Your task to perform on an android device: Turn on the flashlight Image 0: 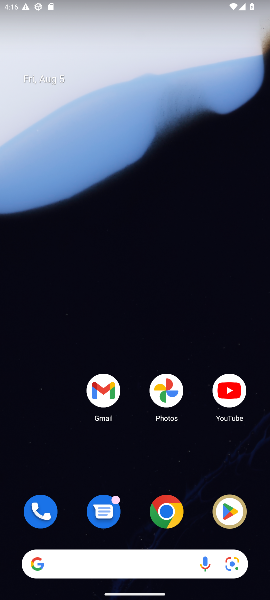
Step 0: drag from (129, 524) to (95, 334)
Your task to perform on an android device: Turn on the flashlight Image 1: 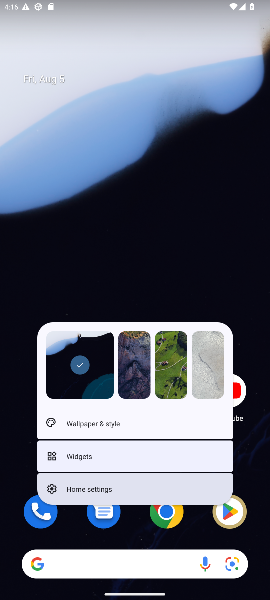
Step 1: click (138, 177)
Your task to perform on an android device: Turn on the flashlight Image 2: 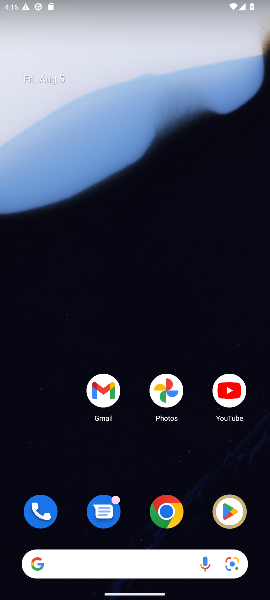
Step 2: drag from (129, 543) to (146, 16)
Your task to perform on an android device: Turn on the flashlight Image 3: 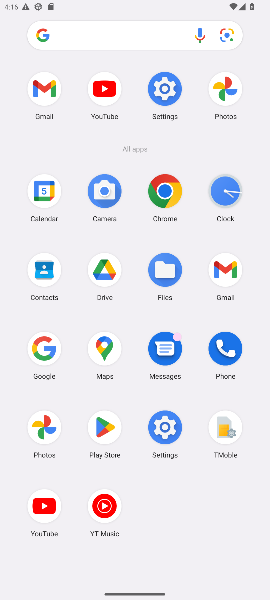
Step 3: click (164, 437)
Your task to perform on an android device: Turn on the flashlight Image 4: 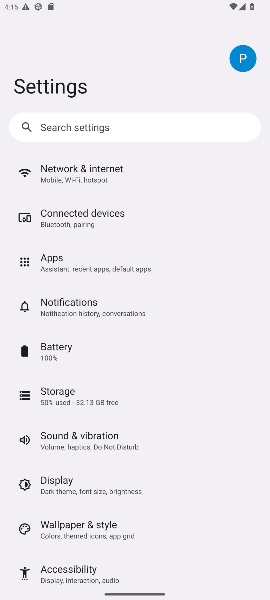
Step 4: task complete